Your task to perform on an android device: Show the shopping cart on walmart.com. Search for usb-c on walmart.com, select the first entry, add it to the cart, then select checkout. Image 0: 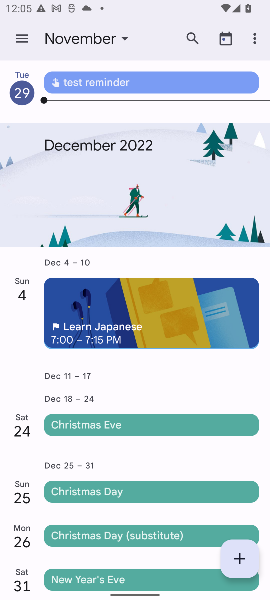
Step 0: press home button
Your task to perform on an android device: Show the shopping cart on walmart.com. Search for usb-c on walmart.com, select the first entry, add it to the cart, then select checkout. Image 1: 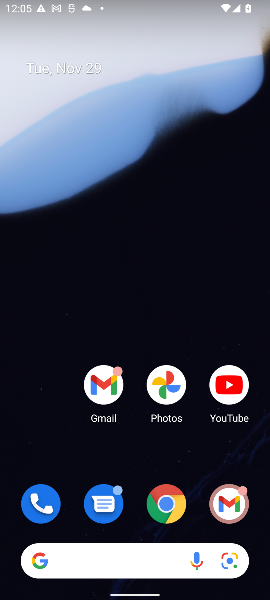
Step 1: click (167, 515)
Your task to perform on an android device: Show the shopping cart on walmart.com. Search for usb-c on walmart.com, select the first entry, add it to the cart, then select checkout. Image 2: 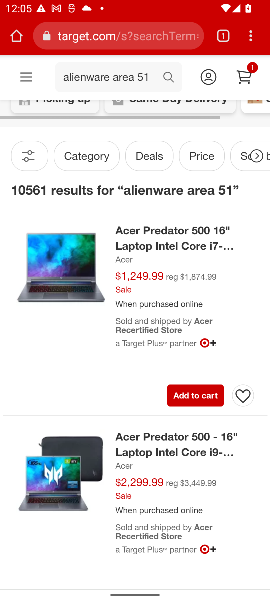
Step 2: click (91, 42)
Your task to perform on an android device: Show the shopping cart on walmart.com. Search for usb-c on walmart.com, select the first entry, add it to the cart, then select checkout. Image 3: 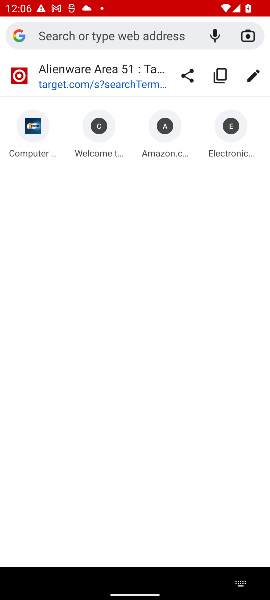
Step 3: type "walmart.com"
Your task to perform on an android device: Show the shopping cart on walmart.com. Search for usb-c on walmart.com, select the first entry, add it to the cart, then select checkout. Image 4: 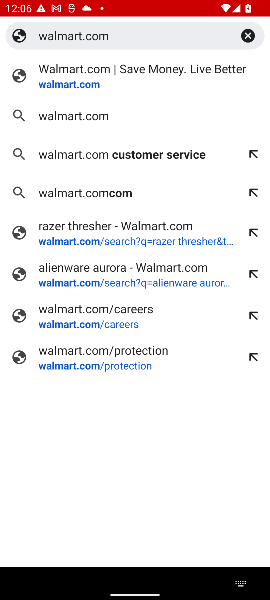
Step 4: click (59, 85)
Your task to perform on an android device: Show the shopping cart on walmart.com. Search for usb-c on walmart.com, select the first entry, add it to the cart, then select checkout. Image 5: 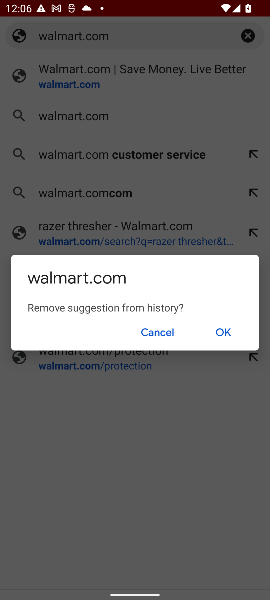
Step 5: click (157, 342)
Your task to perform on an android device: Show the shopping cart on walmart.com. Search for usb-c on walmart.com, select the first entry, add it to the cart, then select checkout. Image 6: 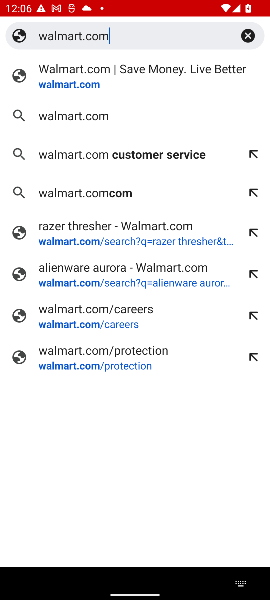
Step 6: click (52, 78)
Your task to perform on an android device: Show the shopping cart on walmart.com. Search for usb-c on walmart.com, select the first entry, add it to the cart, then select checkout. Image 7: 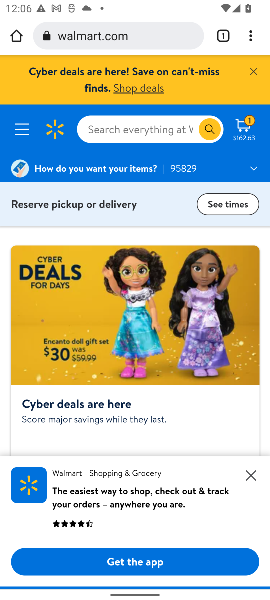
Step 7: click (247, 129)
Your task to perform on an android device: Show the shopping cart on walmart.com. Search for usb-c on walmart.com, select the first entry, add it to the cart, then select checkout. Image 8: 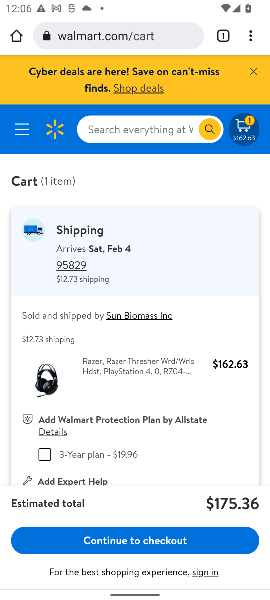
Step 8: click (104, 133)
Your task to perform on an android device: Show the shopping cart on walmart.com. Search for usb-c on walmart.com, select the first entry, add it to the cart, then select checkout. Image 9: 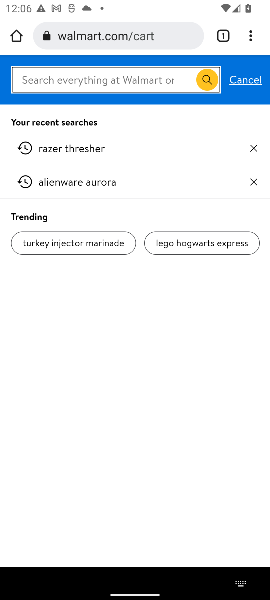
Step 9: type "usb-c"
Your task to perform on an android device: Show the shopping cart on walmart.com. Search for usb-c on walmart.com, select the first entry, add it to the cart, then select checkout. Image 10: 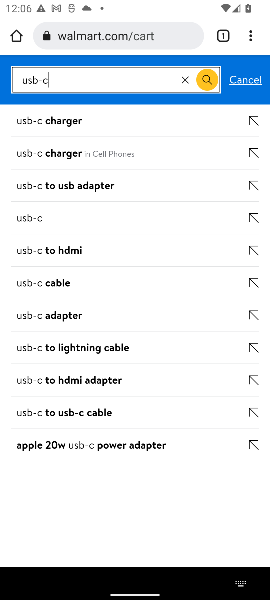
Step 10: click (40, 120)
Your task to perform on an android device: Show the shopping cart on walmart.com. Search for usb-c on walmart.com, select the first entry, add it to the cart, then select checkout. Image 11: 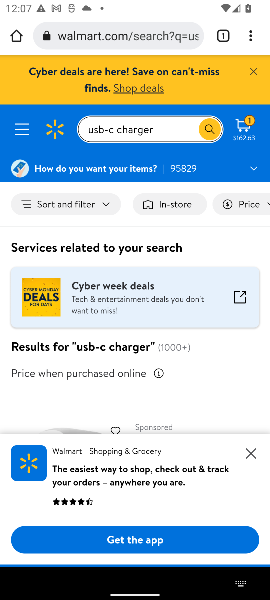
Step 11: drag from (128, 323) to (136, 194)
Your task to perform on an android device: Show the shopping cart on walmart.com. Search for usb-c on walmart.com, select the first entry, add it to the cart, then select checkout. Image 12: 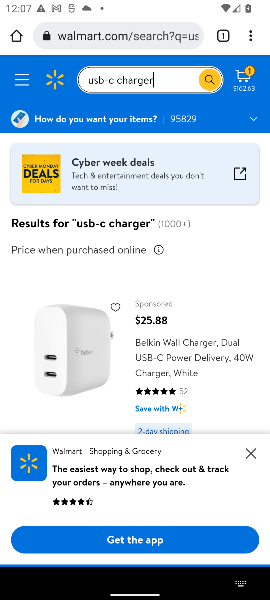
Step 12: drag from (128, 355) to (155, 247)
Your task to perform on an android device: Show the shopping cart on walmart.com. Search for usb-c on walmart.com, select the first entry, add it to the cart, then select checkout. Image 13: 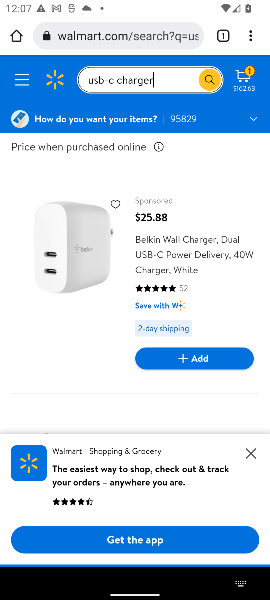
Step 13: click (189, 354)
Your task to perform on an android device: Show the shopping cart on walmart.com. Search for usb-c on walmart.com, select the first entry, add it to the cart, then select checkout. Image 14: 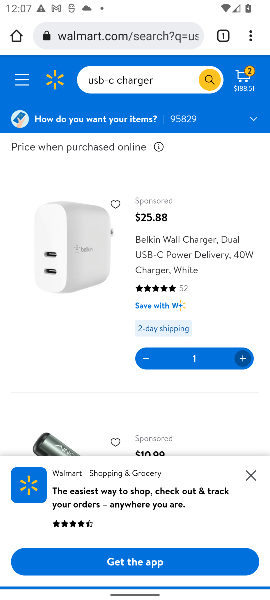
Step 14: click (247, 84)
Your task to perform on an android device: Show the shopping cart on walmart.com. Search for usb-c on walmart.com, select the first entry, add it to the cart, then select checkout. Image 15: 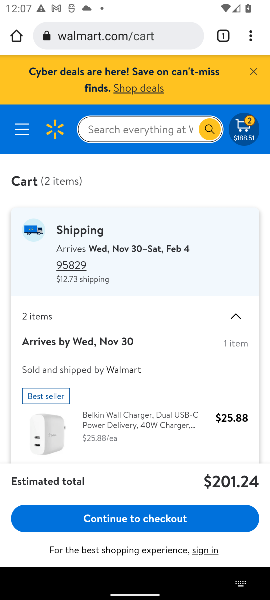
Step 15: click (146, 511)
Your task to perform on an android device: Show the shopping cart on walmart.com. Search for usb-c on walmart.com, select the first entry, add it to the cart, then select checkout. Image 16: 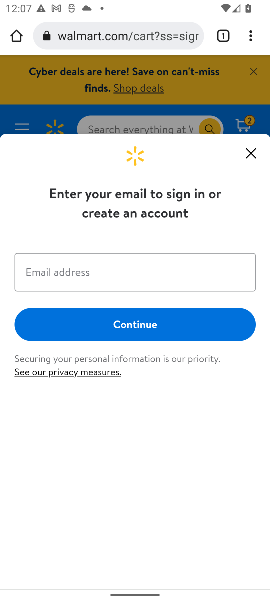
Step 16: task complete